Your task to perform on an android device: What's on my calendar today? Image 0: 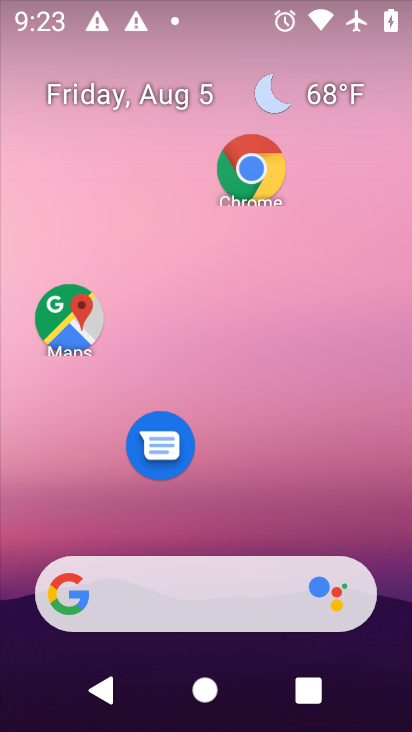
Step 0: drag from (221, 479) to (210, 17)
Your task to perform on an android device: What's on my calendar today? Image 1: 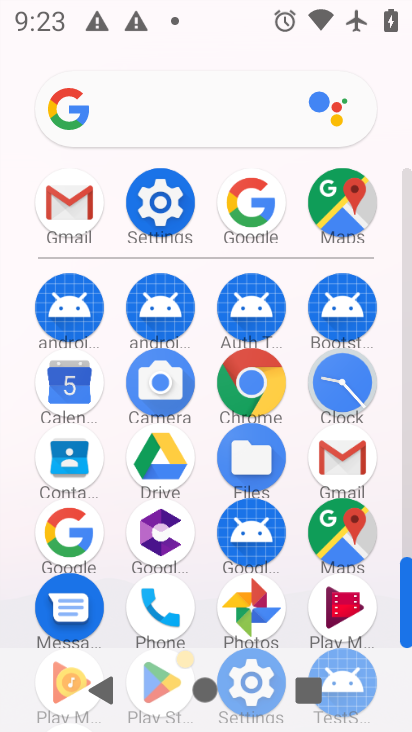
Step 1: click (81, 390)
Your task to perform on an android device: What's on my calendar today? Image 2: 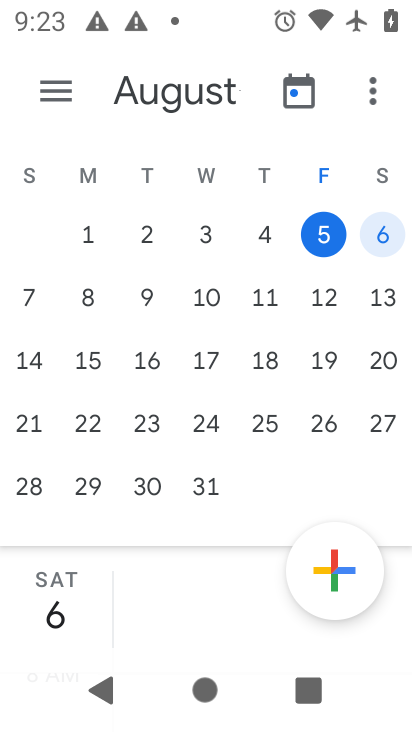
Step 2: click (333, 223)
Your task to perform on an android device: What's on my calendar today? Image 3: 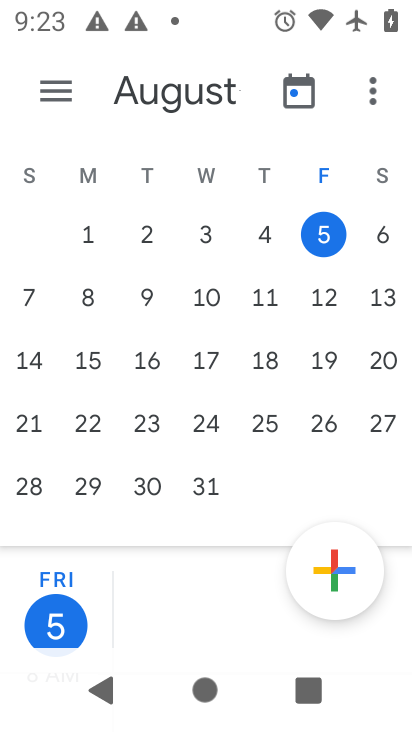
Step 3: task complete